Your task to perform on an android device: open app "PUBG MOBILE" (install if not already installed) Image 0: 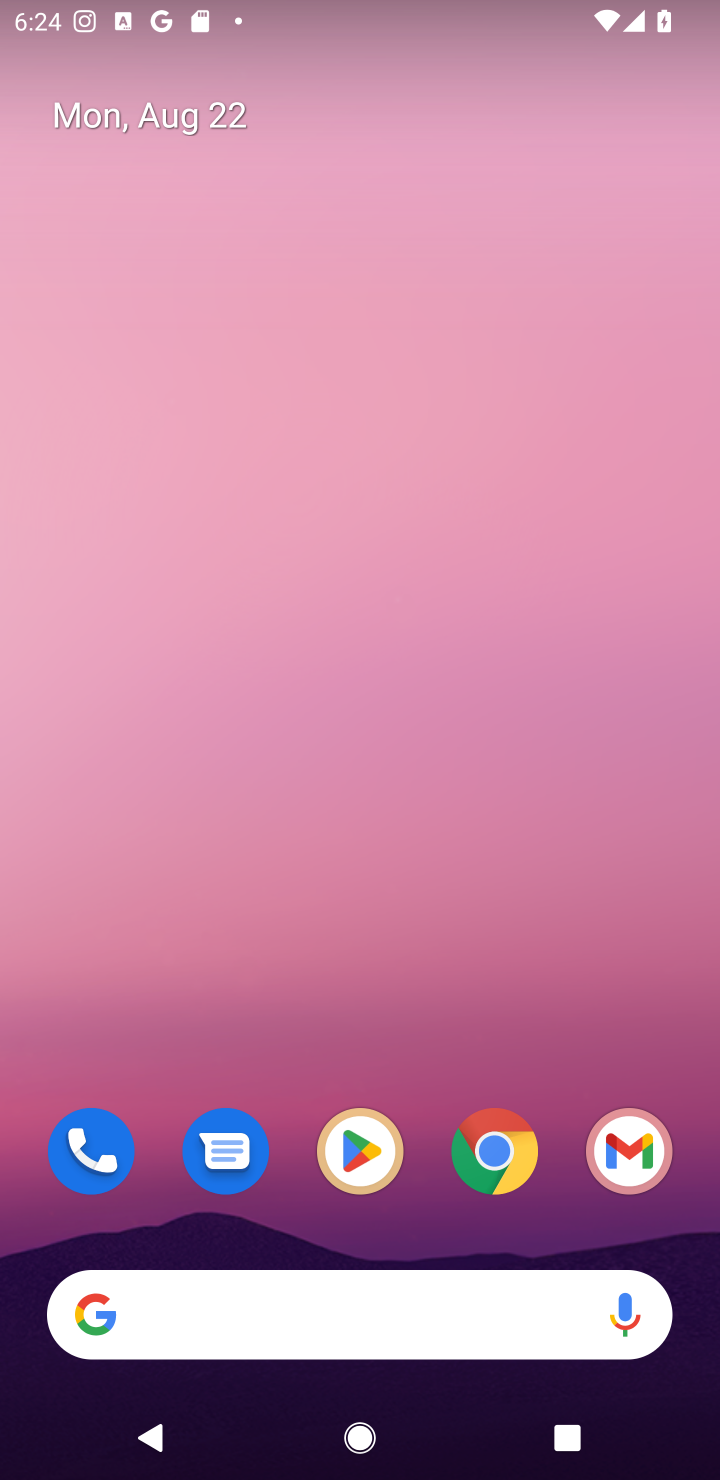
Step 0: click (344, 1146)
Your task to perform on an android device: open app "PUBG MOBILE" (install if not already installed) Image 1: 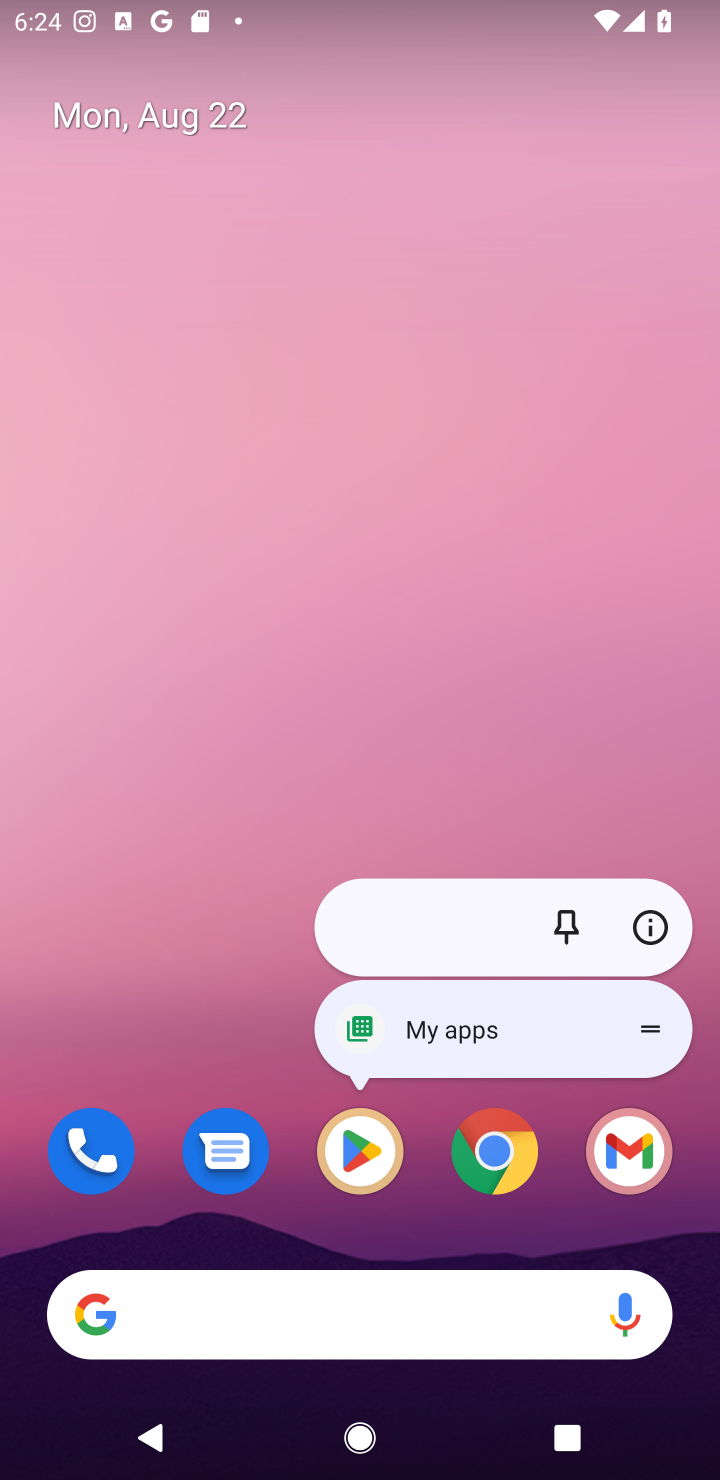
Step 1: click (344, 1161)
Your task to perform on an android device: open app "PUBG MOBILE" (install if not already installed) Image 2: 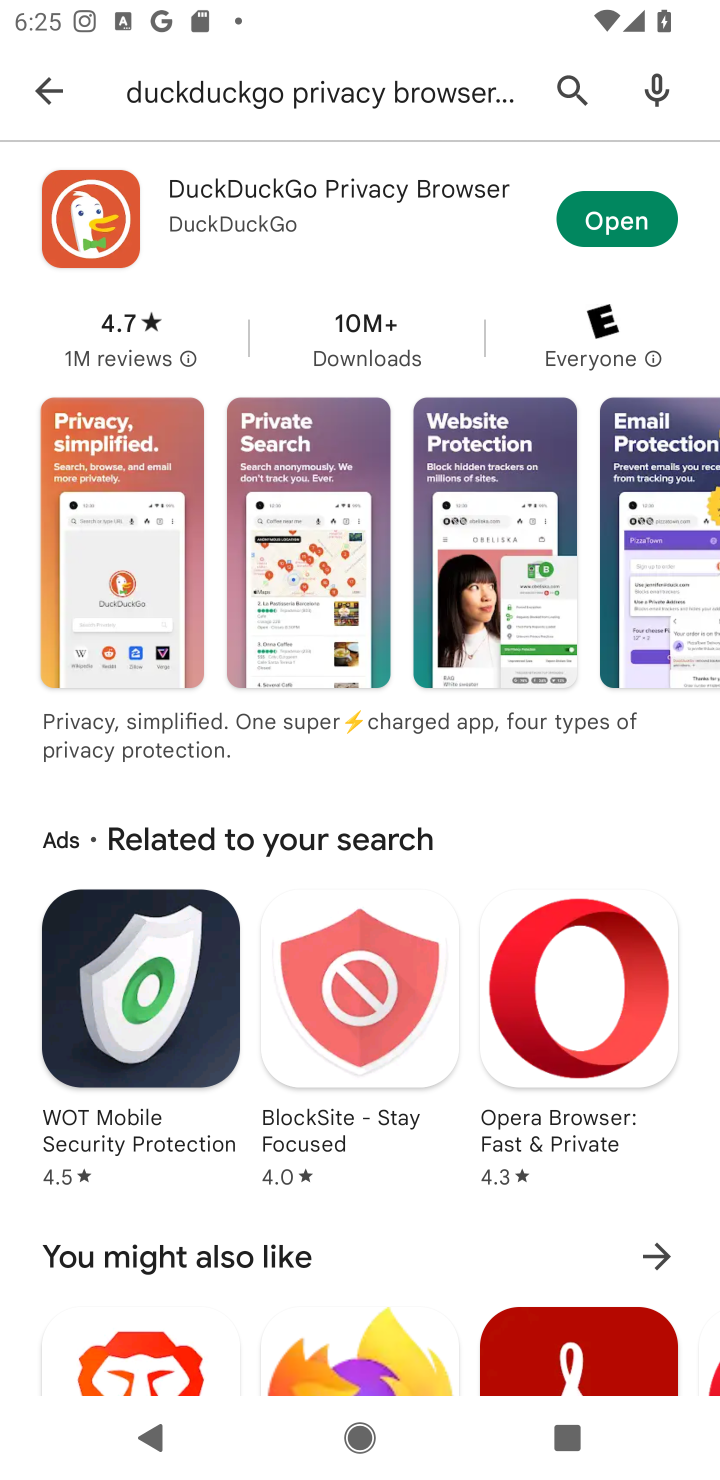
Step 2: click (573, 86)
Your task to perform on an android device: open app "PUBG MOBILE" (install if not already installed) Image 3: 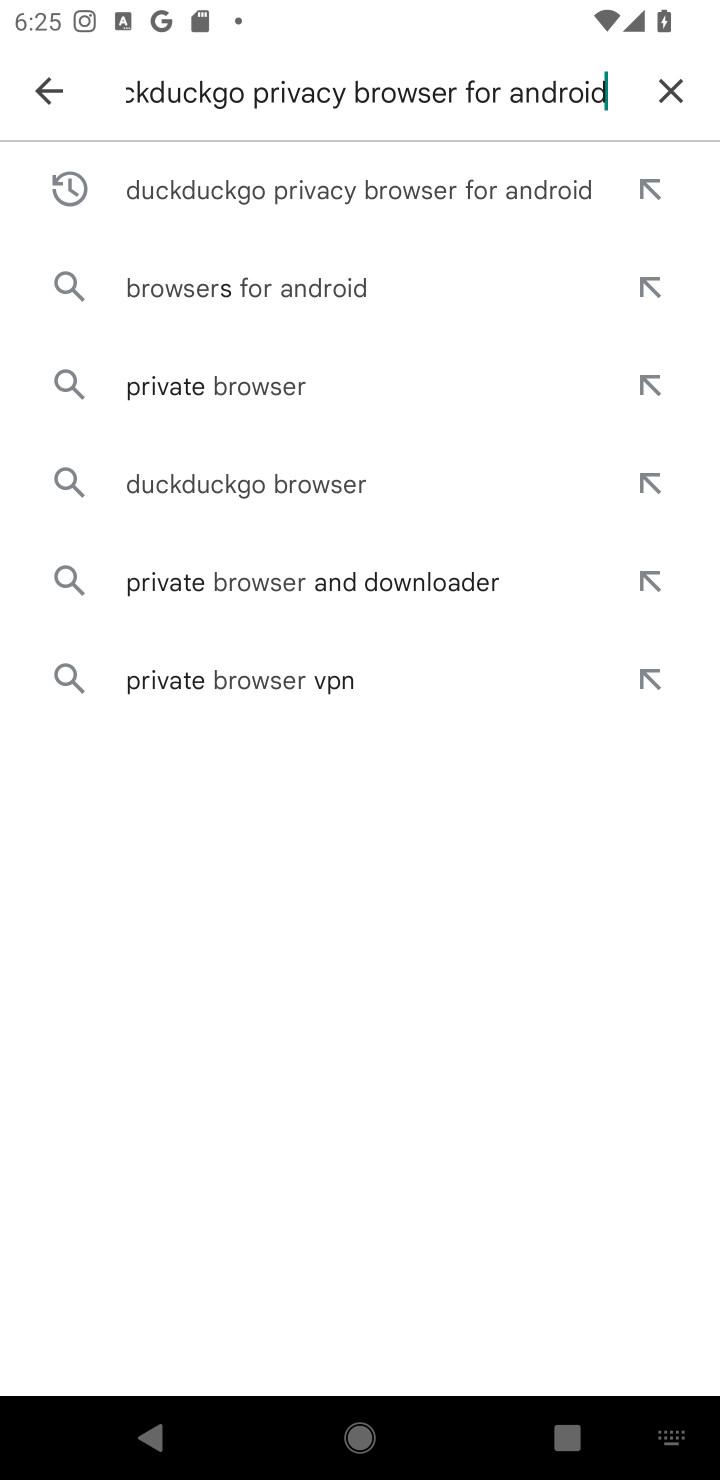
Step 3: type "PUBG MOBILE"
Your task to perform on an android device: open app "PUBG MOBILE" (install if not already installed) Image 4: 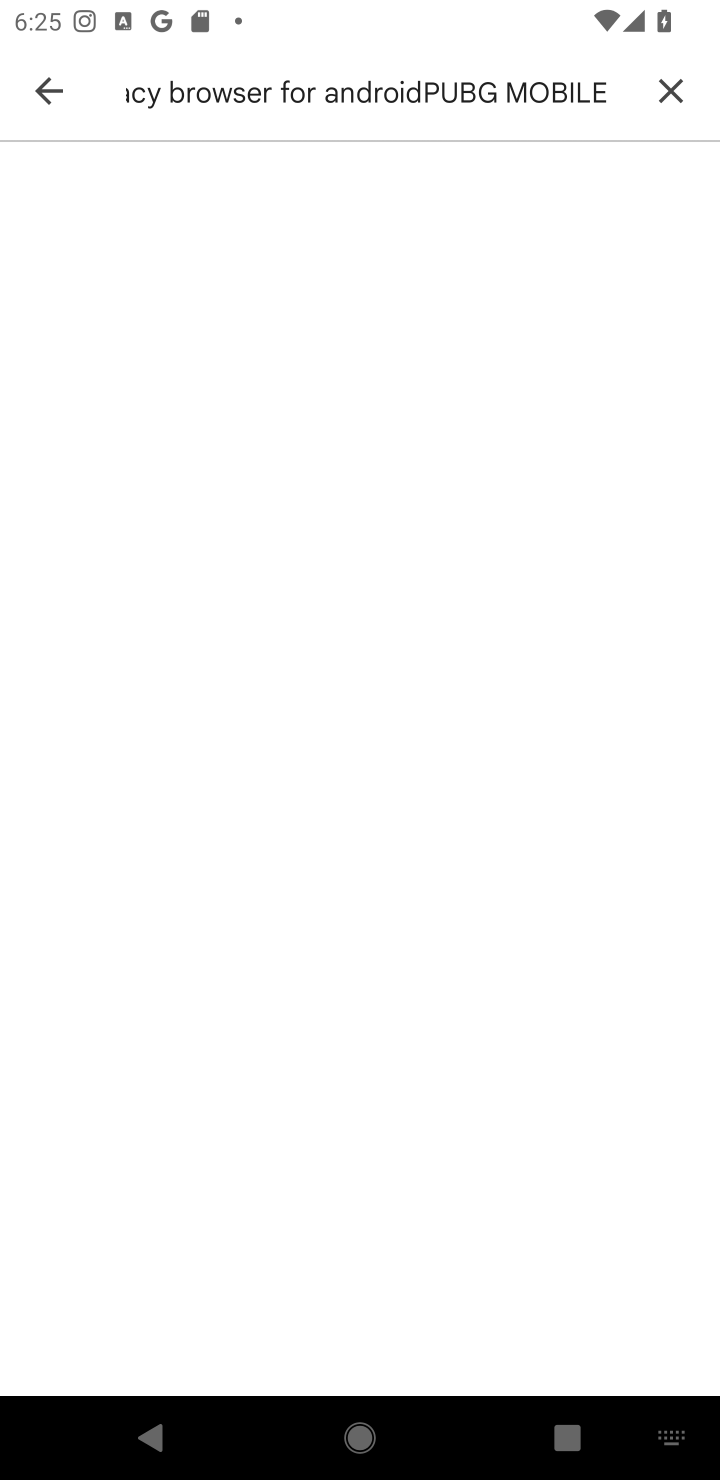
Step 4: click (676, 88)
Your task to perform on an android device: open app "PUBG MOBILE" (install if not already installed) Image 5: 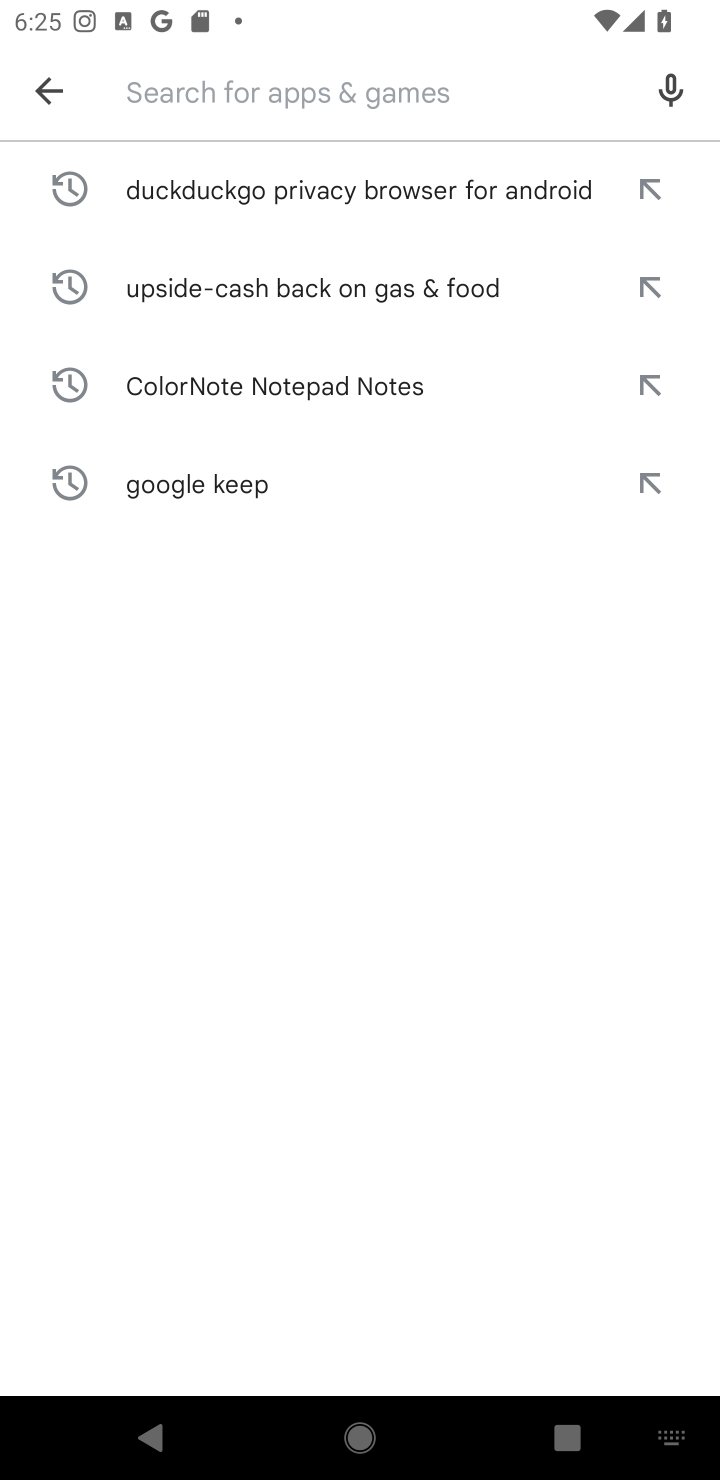
Step 5: type "PUBG MOBILE"
Your task to perform on an android device: open app "PUBG MOBILE" (install if not already installed) Image 6: 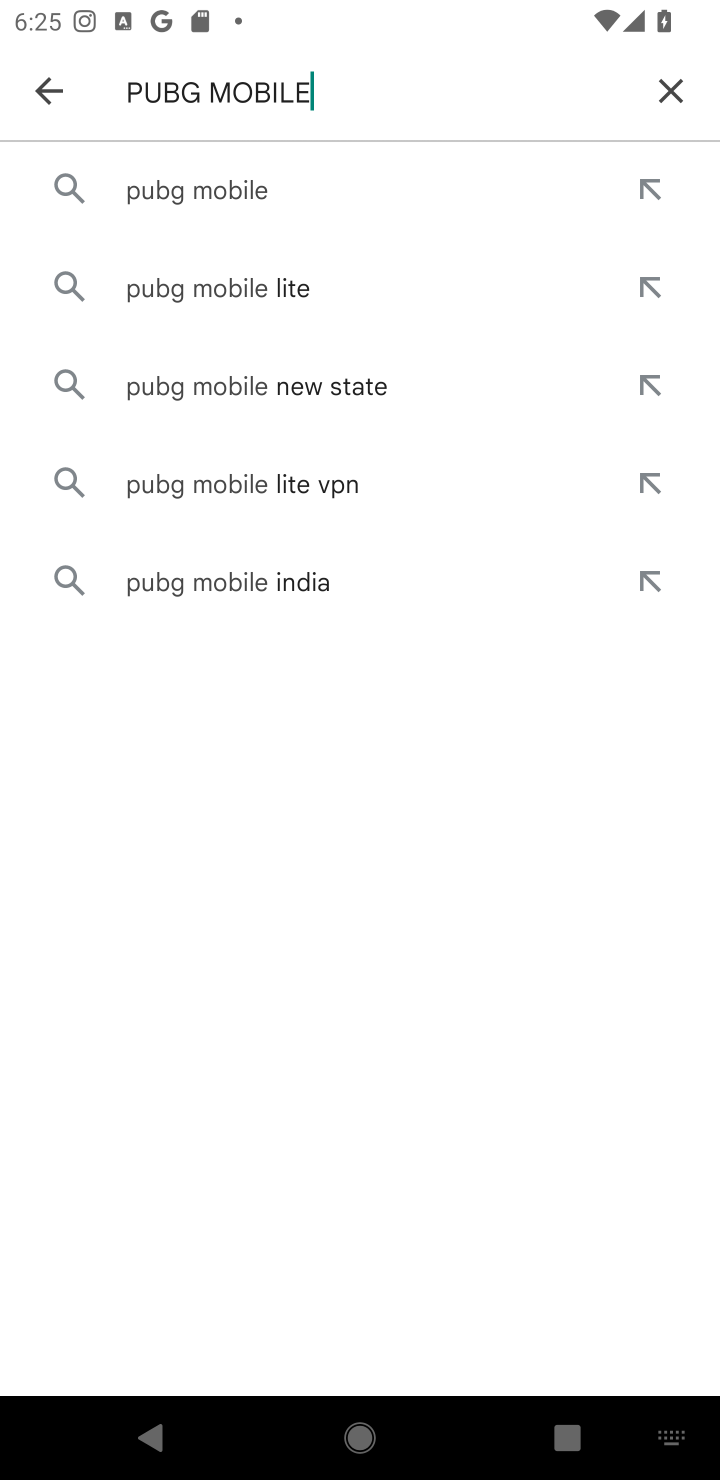
Step 6: click (220, 196)
Your task to perform on an android device: open app "PUBG MOBILE" (install if not already installed) Image 7: 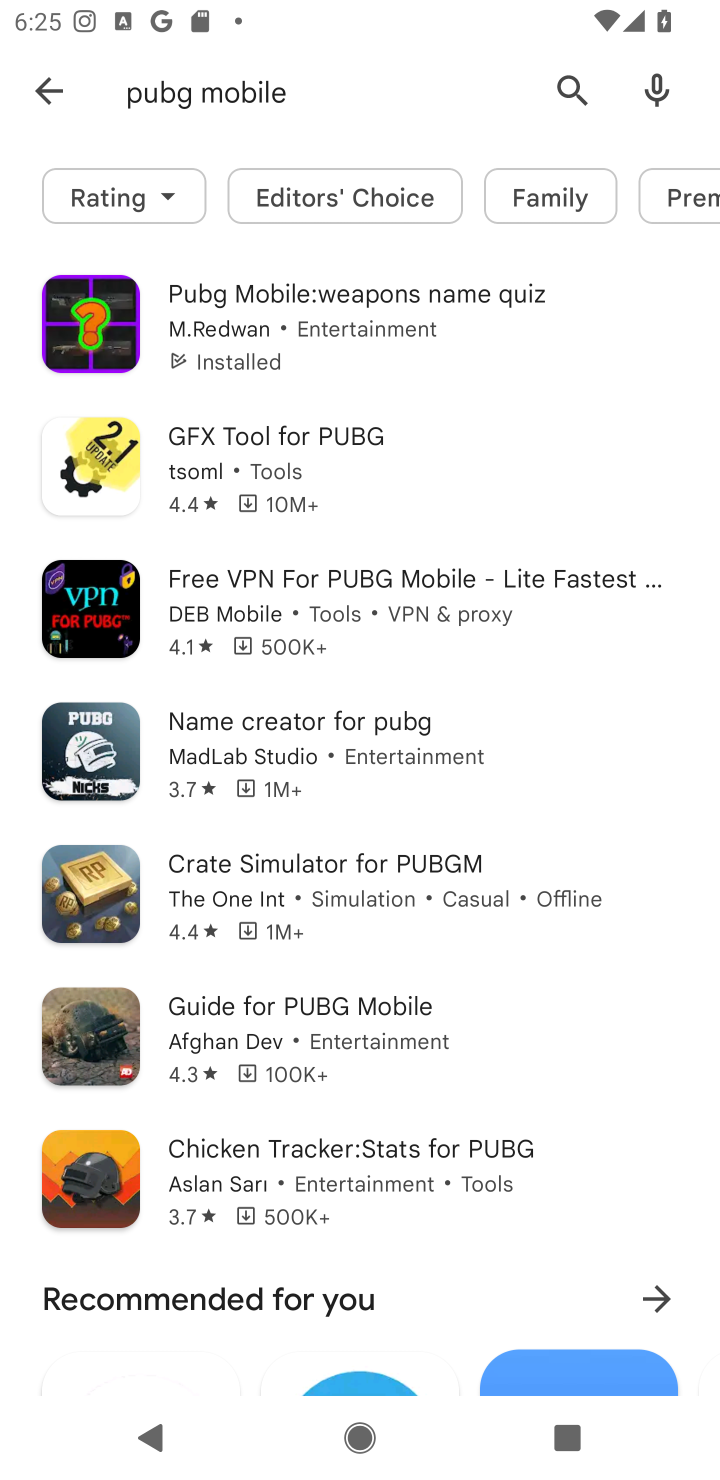
Step 7: click (350, 322)
Your task to perform on an android device: open app "PUBG MOBILE" (install if not already installed) Image 8: 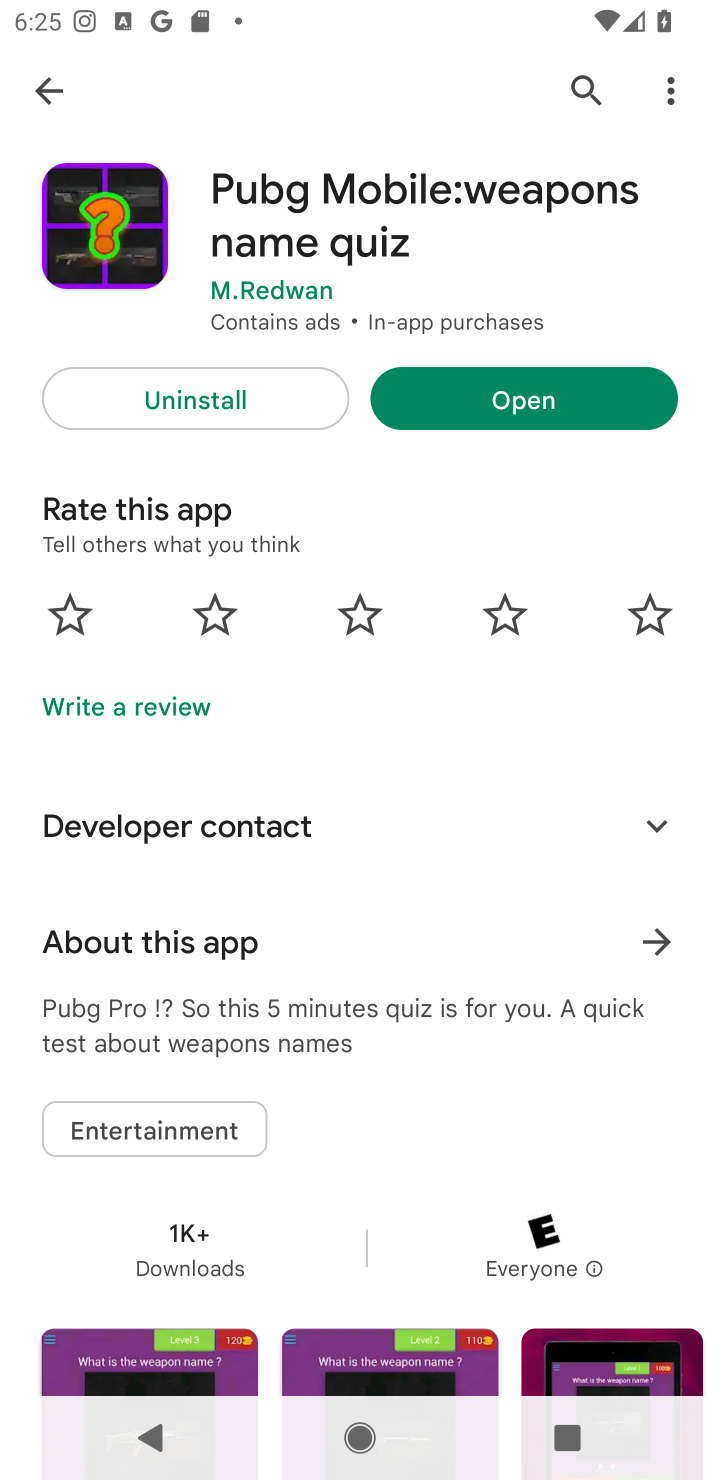
Step 8: click (545, 408)
Your task to perform on an android device: open app "PUBG MOBILE" (install if not already installed) Image 9: 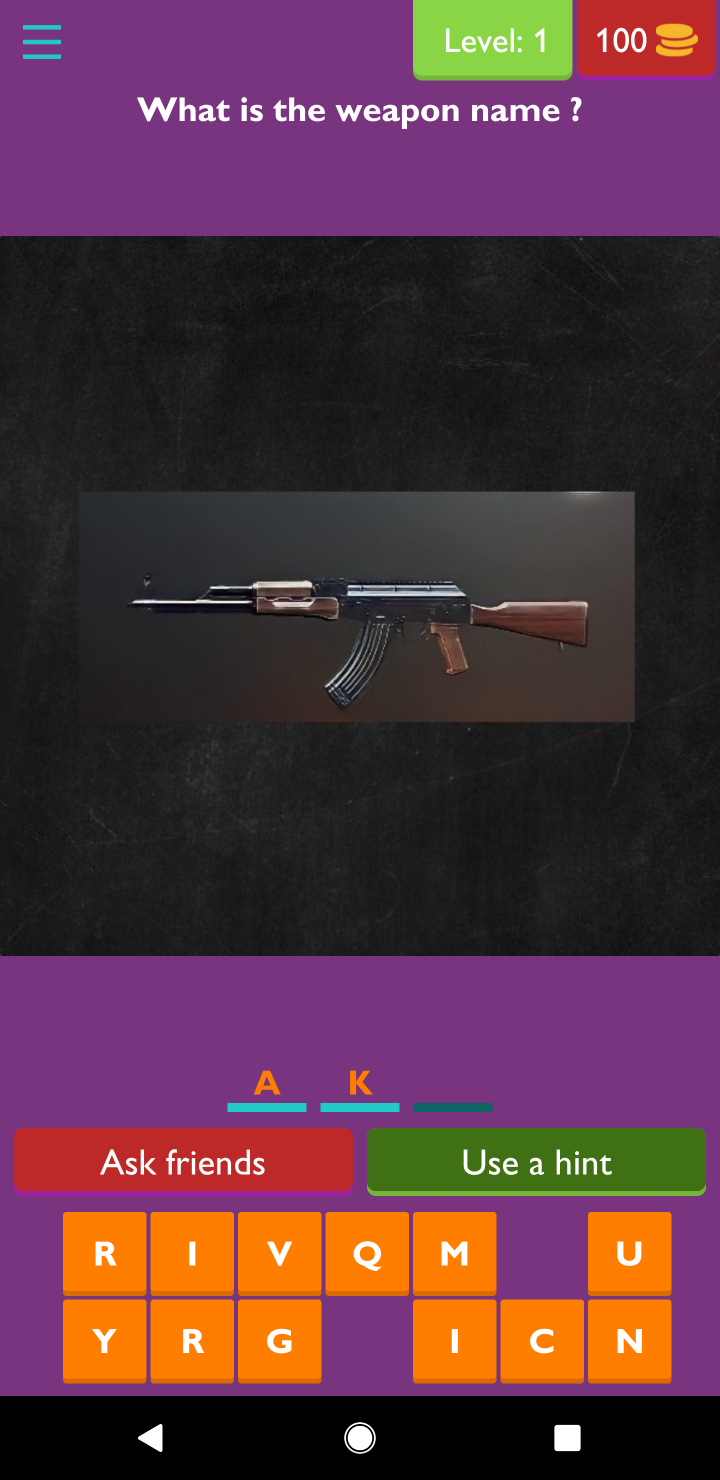
Step 9: task complete